Your task to perform on an android device: turn off picture-in-picture Image 0: 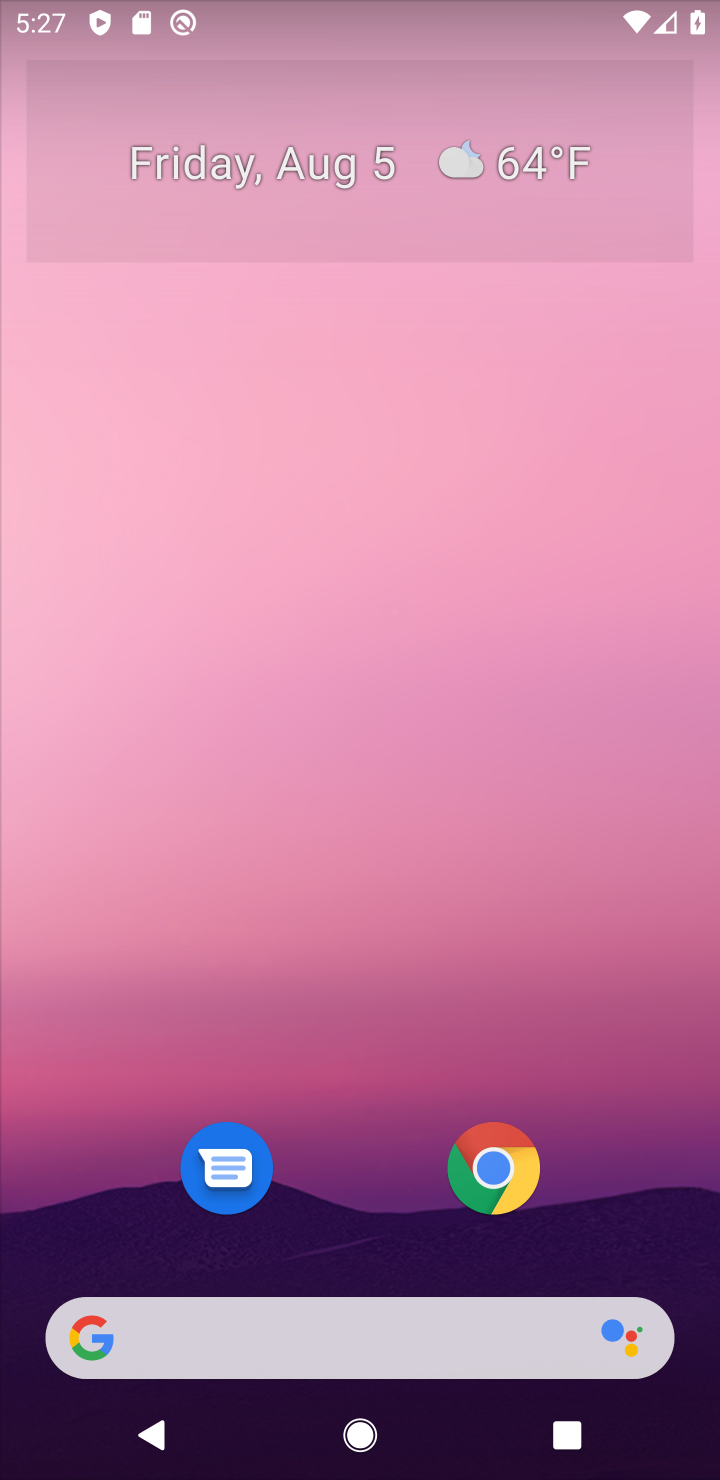
Step 0: press home button
Your task to perform on an android device: turn off picture-in-picture Image 1: 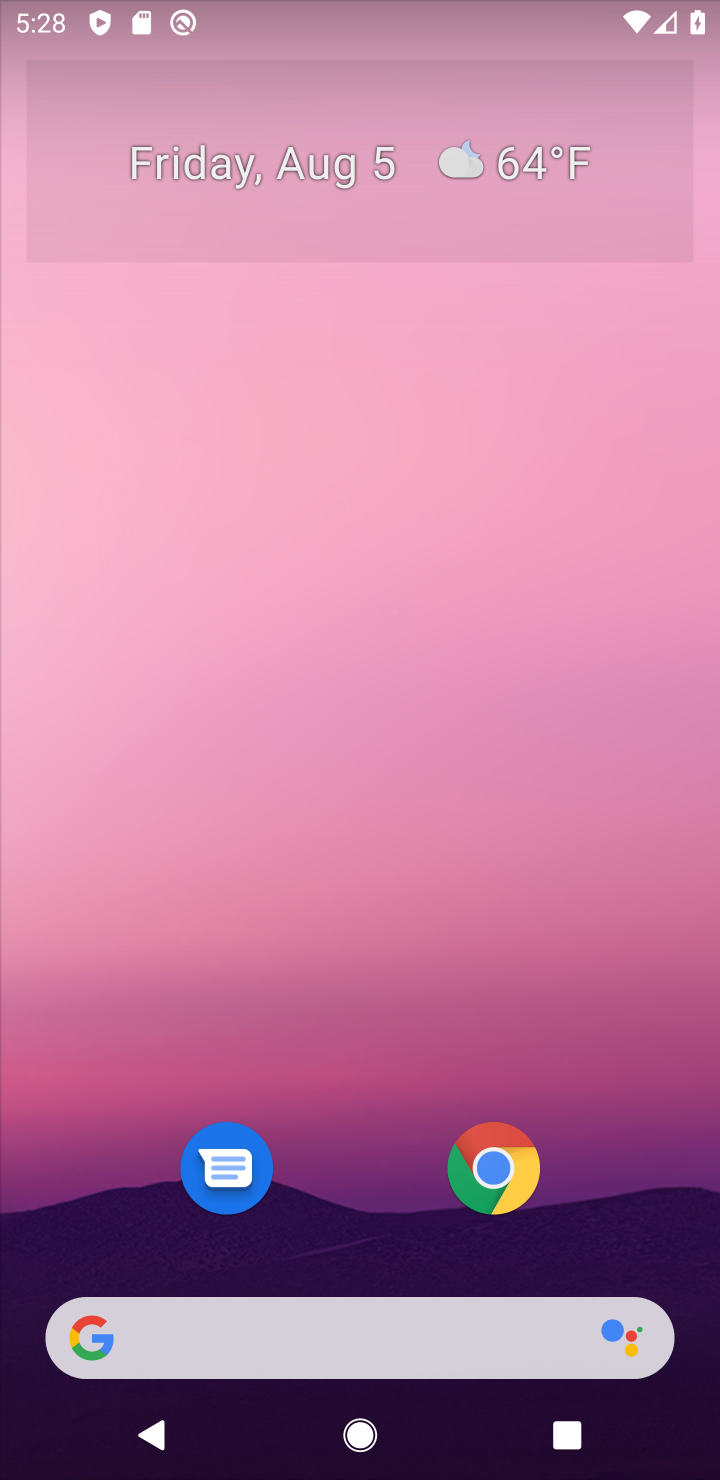
Step 1: click (487, 1181)
Your task to perform on an android device: turn off picture-in-picture Image 2: 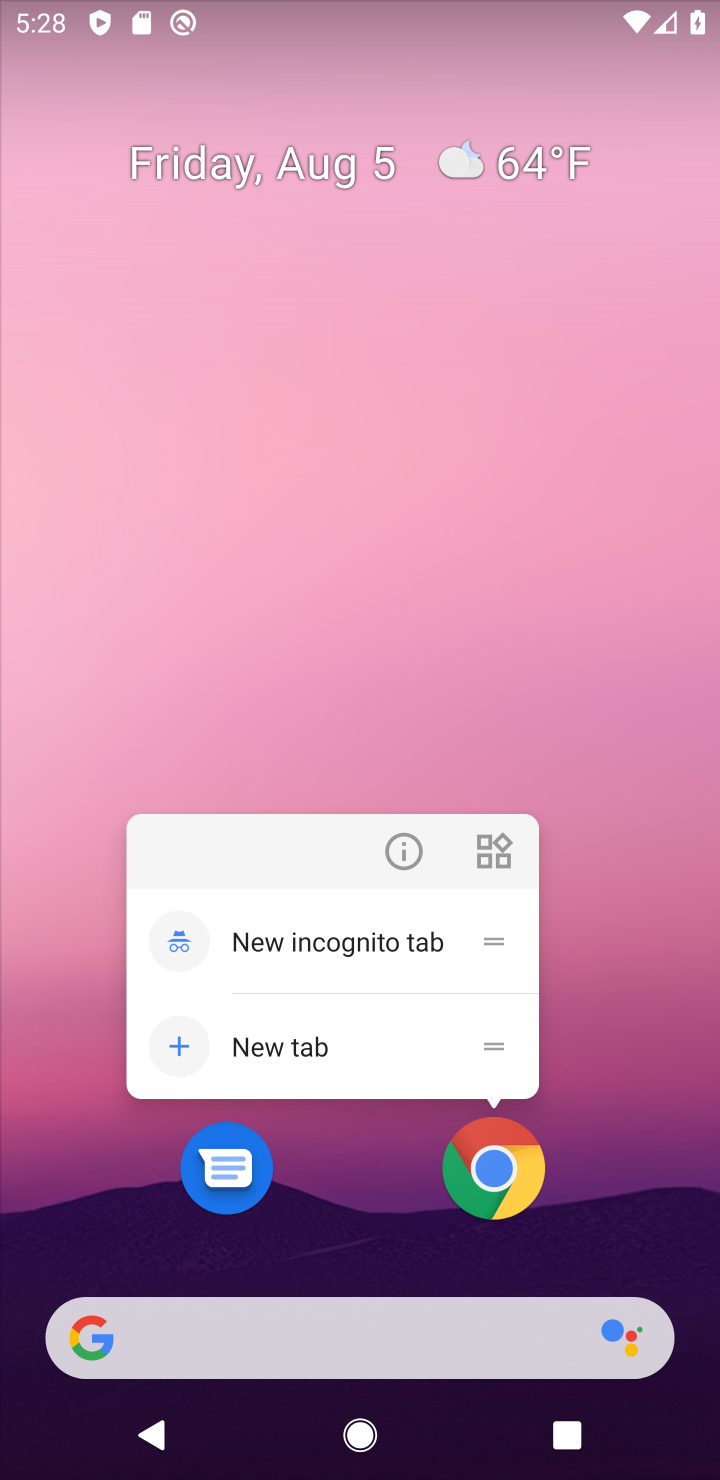
Step 2: click (392, 857)
Your task to perform on an android device: turn off picture-in-picture Image 3: 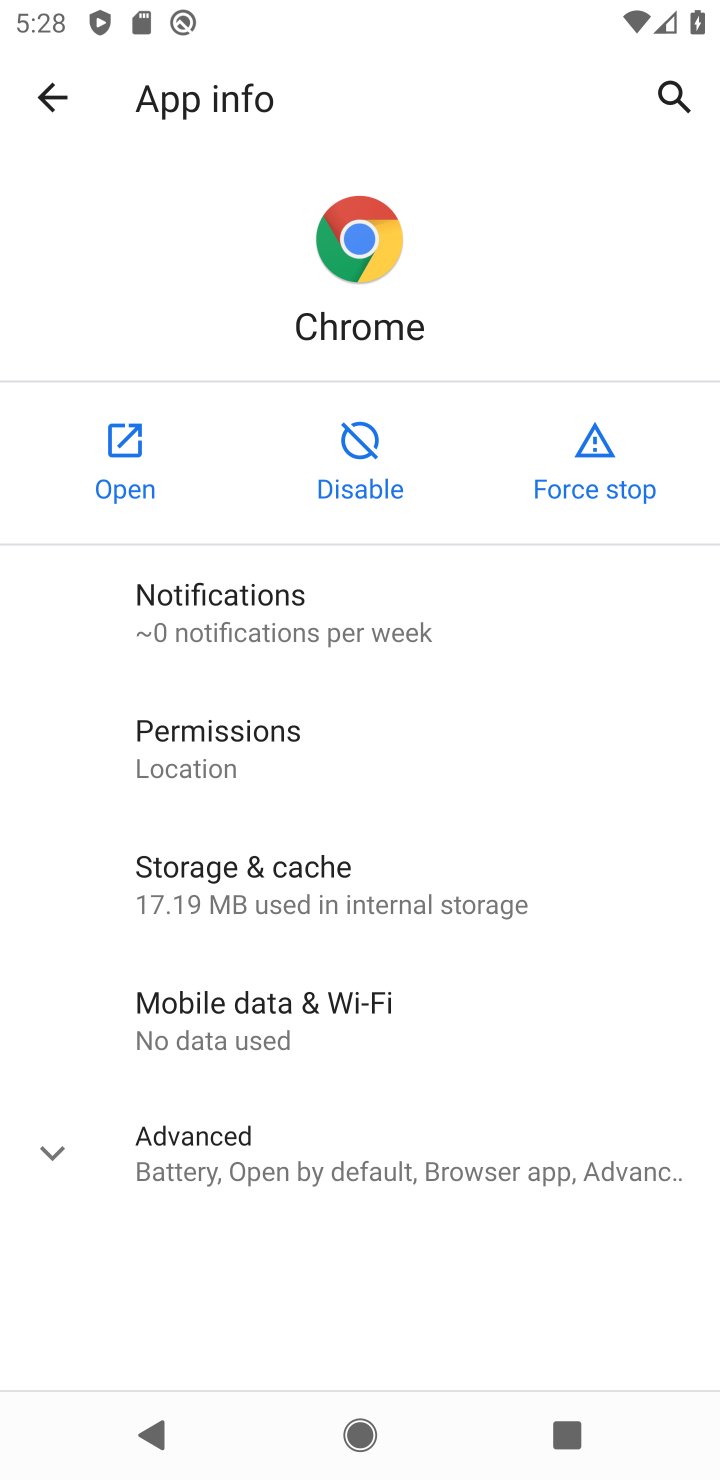
Step 3: click (220, 1157)
Your task to perform on an android device: turn off picture-in-picture Image 4: 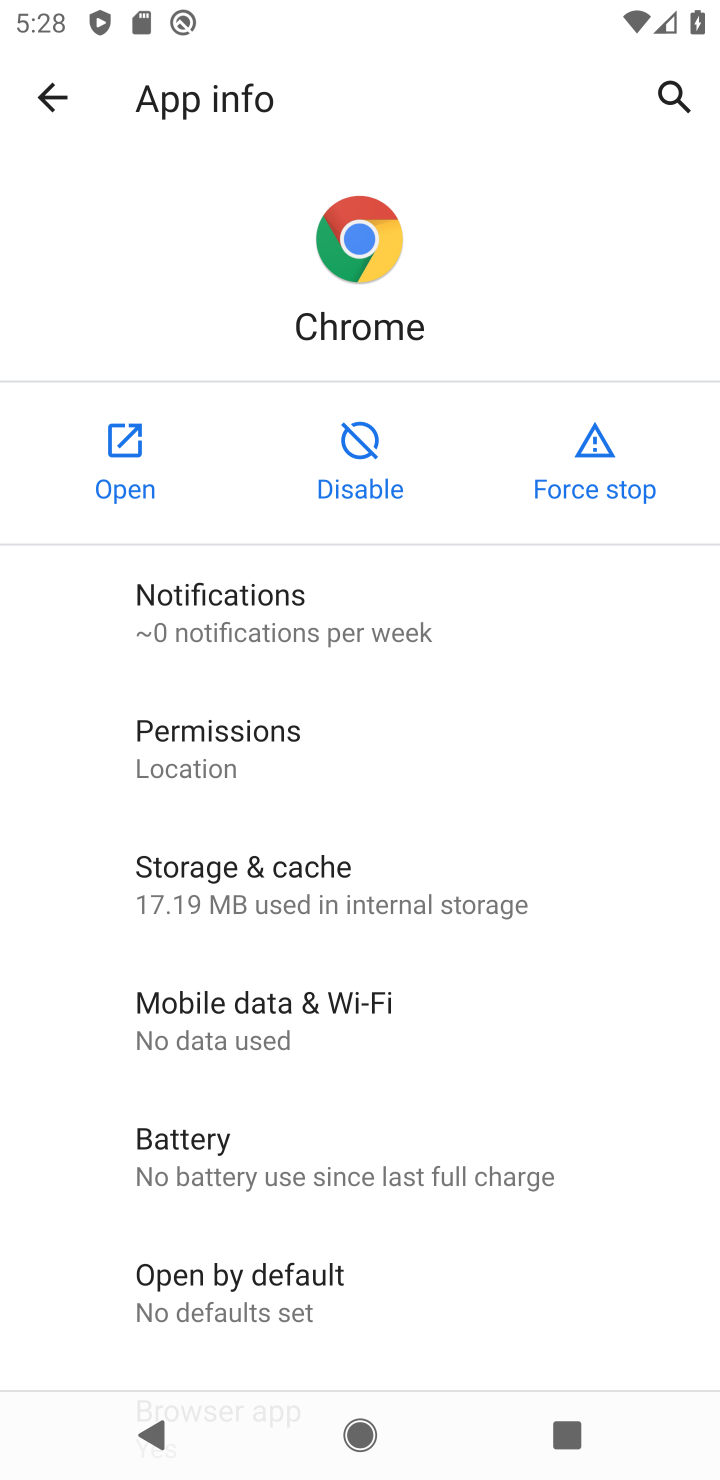
Step 4: drag from (569, 1176) to (537, 318)
Your task to perform on an android device: turn off picture-in-picture Image 5: 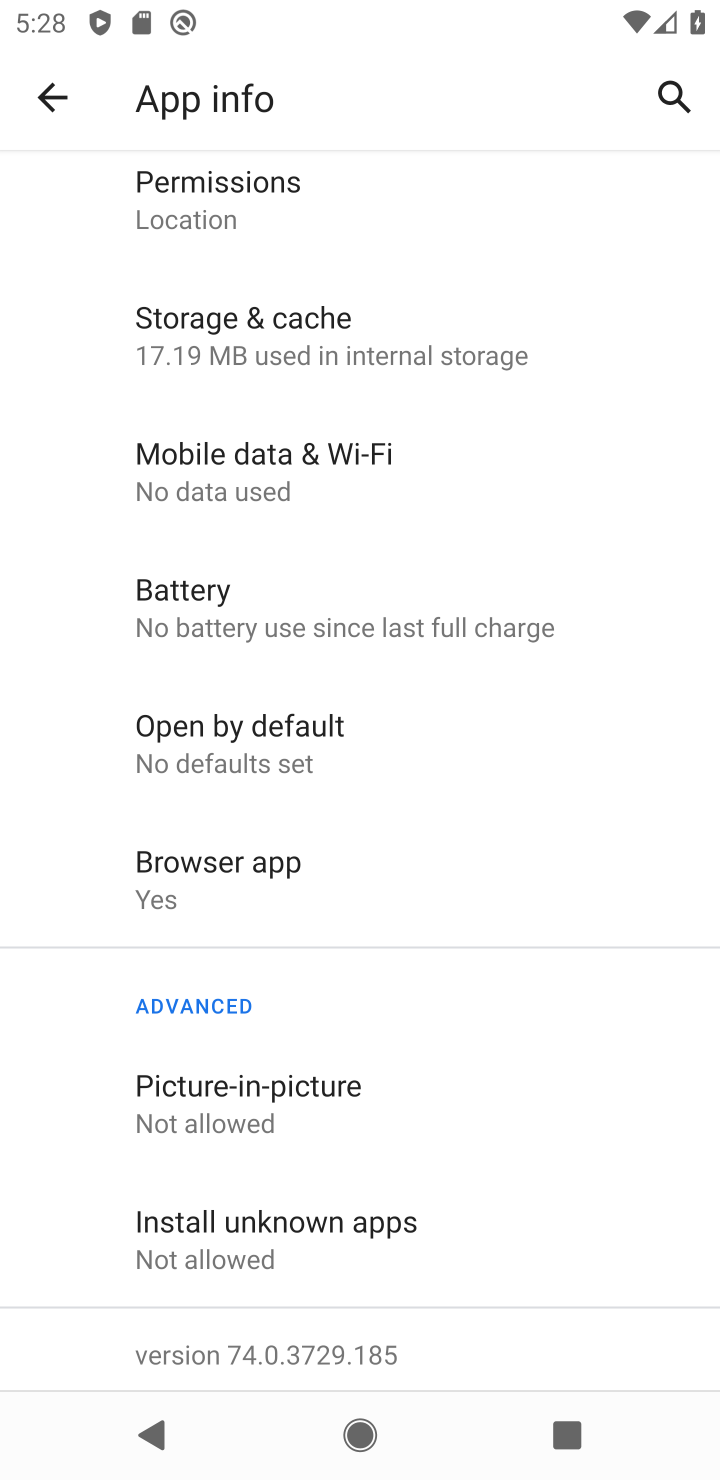
Step 5: click (235, 1102)
Your task to perform on an android device: turn off picture-in-picture Image 6: 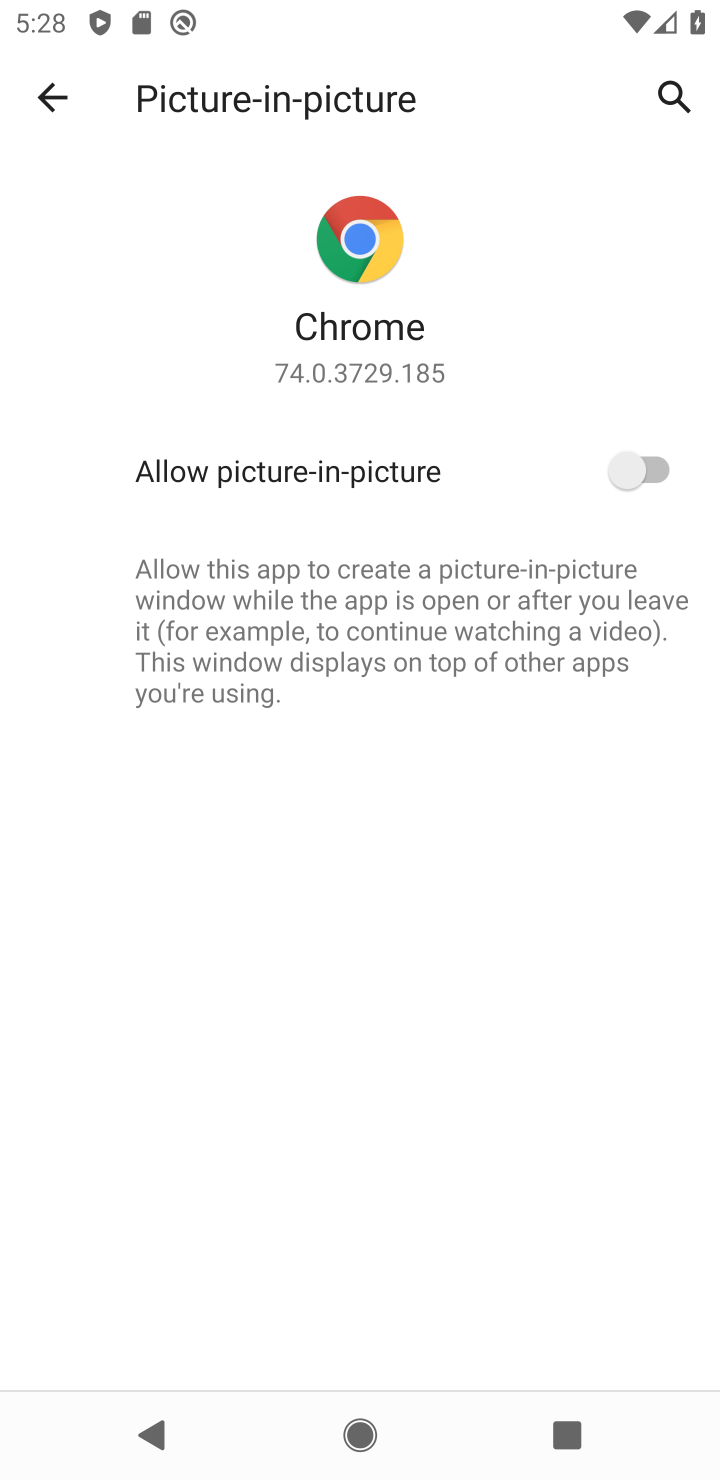
Step 6: task complete